Your task to perform on an android device: Open Reddit.com Image 0: 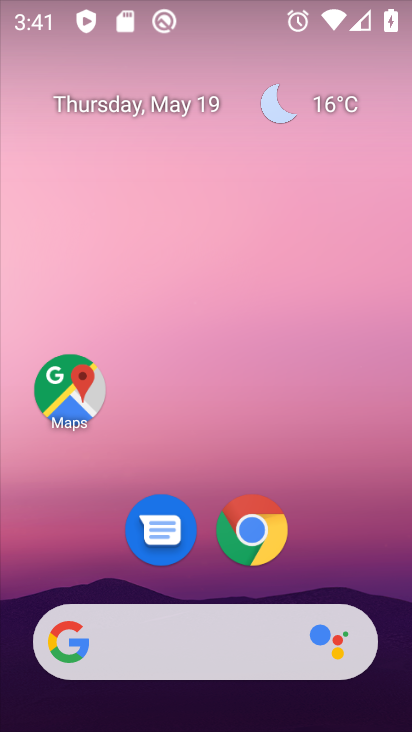
Step 0: drag from (293, 567) to (267, 222)
Your task to perform on an android device: Open Reddit.com Image 1: 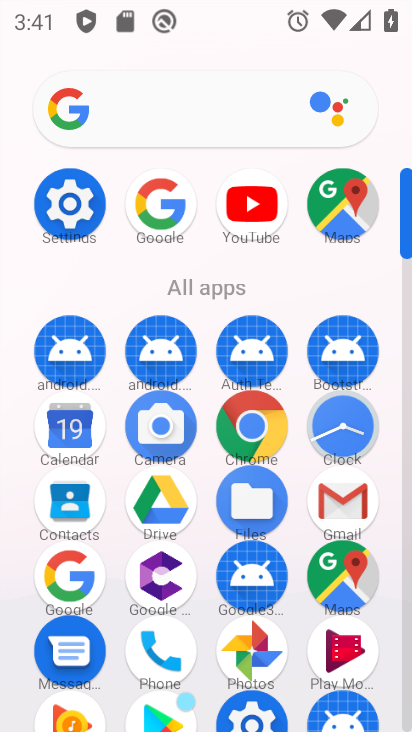
Step 1: click (159, 206)
Your task to perform on an android device: Open Reddit.com Image 2: 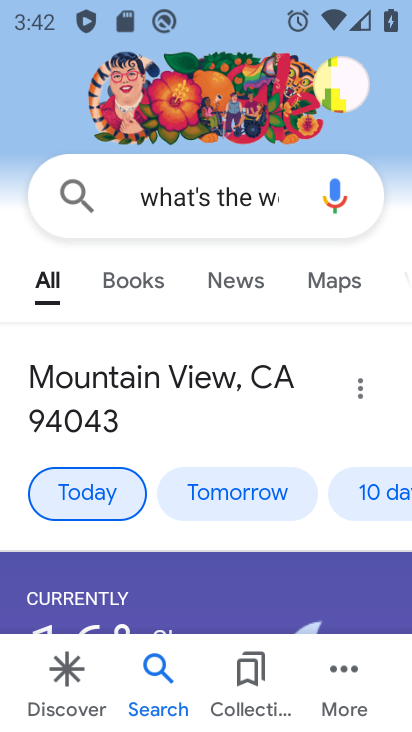
Step 2: click (228, 197)
Your task to perform on an android device: Open Reddit.com Image 3: 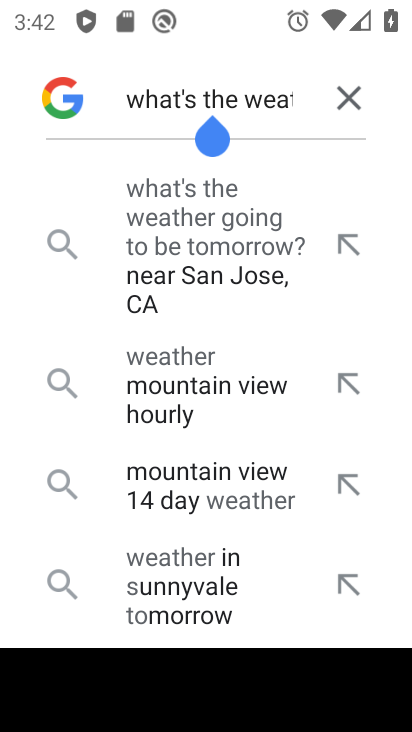
Step 3: click (351, 99)
Your task to perform on an android device: Open Reddit.com Image 4: 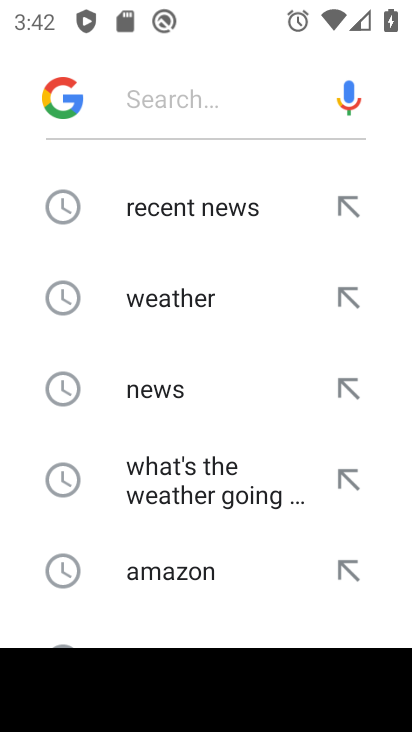
Step 4: drag from (214, 436) to (246, 209)
Your task to perform on an android device: Open Reddit.com Image 5: 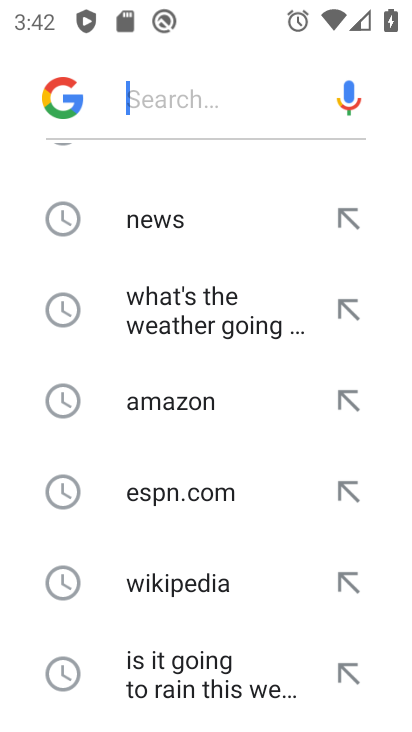
Step 5: drag from (175, 565) to (188, 298)
Your task to perform on an android device: Open Reddit.com Image 6: 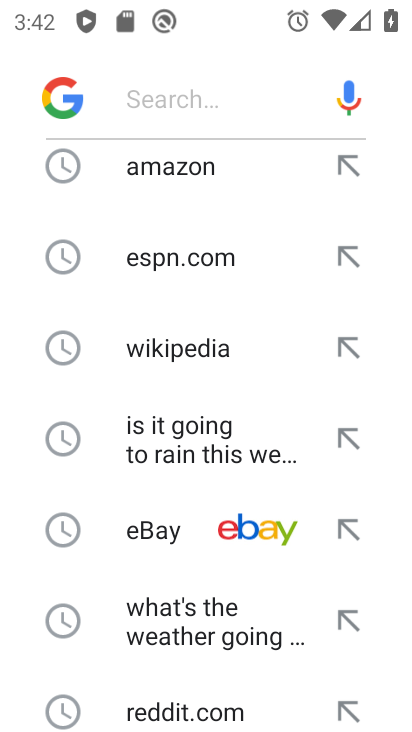
Step 6: drag from (188, 614) to (188, 415)
Your task to perform on an android device: Open Reddit.com Image 7: 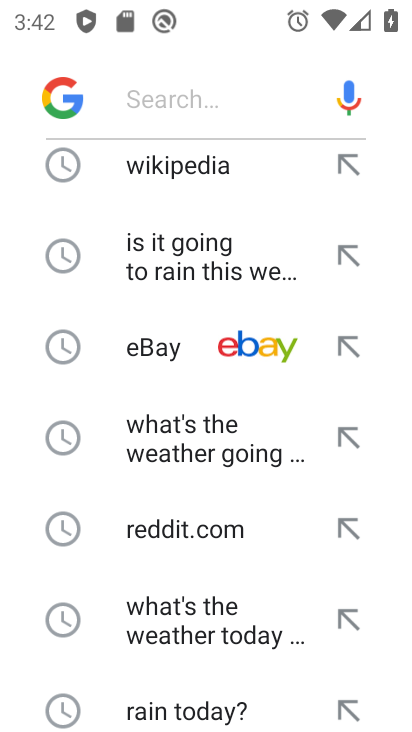
Step 7: click (195, 525)
Your task to perform on an android device: Open Reddit.com Image 8: 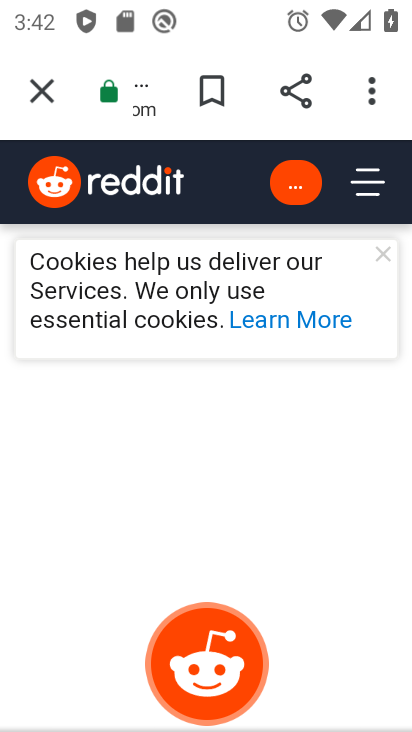
Step 8: task complete